Your task to perform on an android device: Open my contact list Image 0: 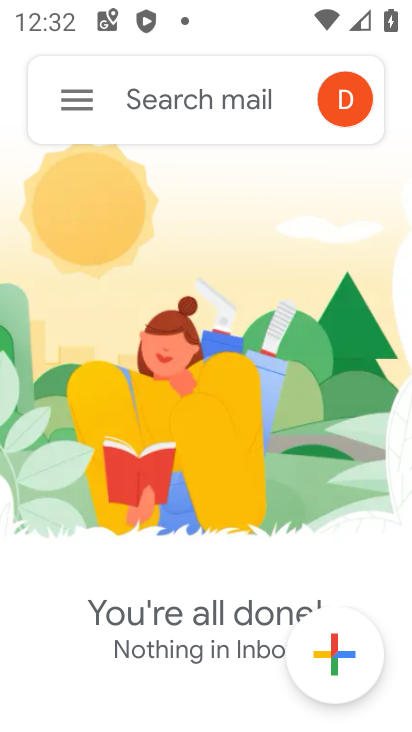
Step 0: press home button
Your task to perform on an android device: Open my contact list Image 1: 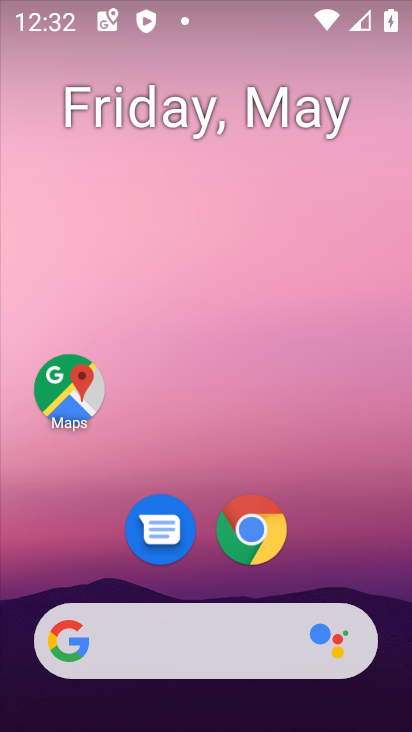
Step 1: drag from (332, 568) to (295, 1)
Your task to perform on an android device: Open my contact list Image 2: 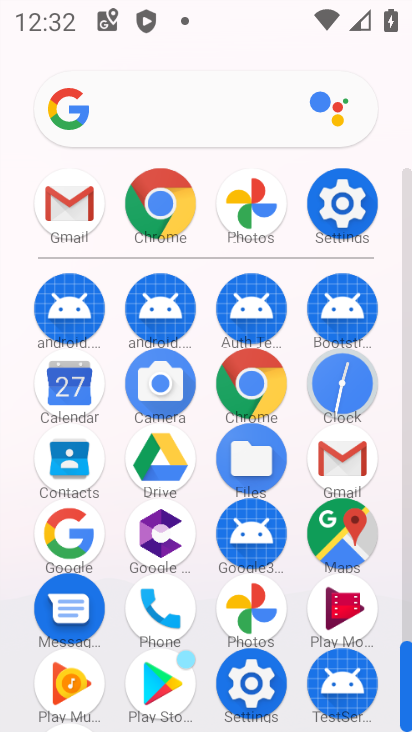
Step 2: click (70, 453)
Your task to perform on an android device: Open my contact list Image 3: 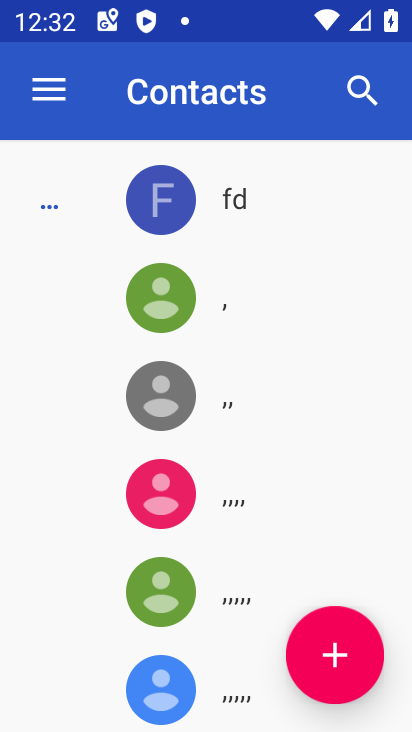
Step 3: task complete